Your task to perform on an android device: Go to eBay Image 0: 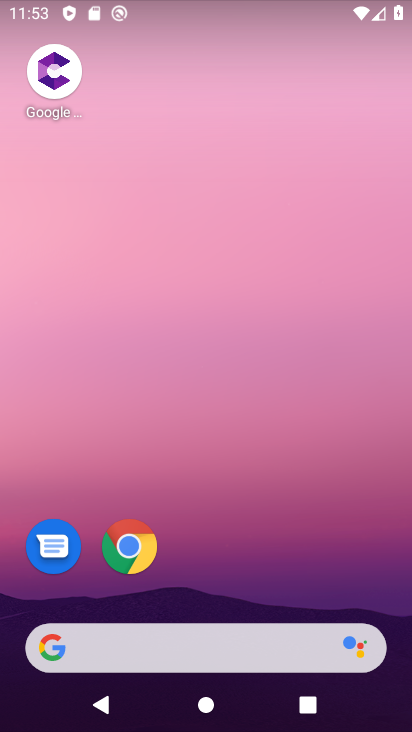
Step 0: click (157, 647)
Your task to perform on an android device: Go to eBay Image 1: 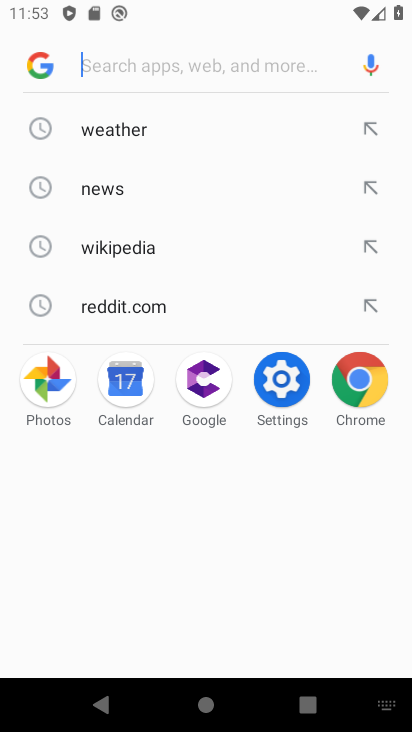
Step 1: type "eBay"
Your task to perform on an android device: Go to eBay Image 2: 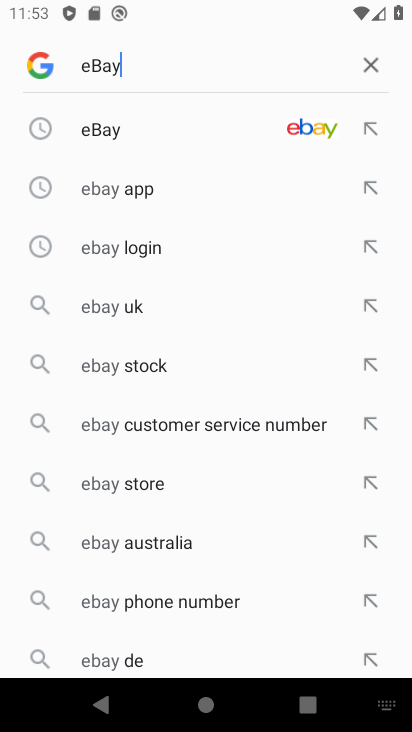
Step 2: click (184, 133)
Your task to perform on an android device: Go to eBay Image 3: 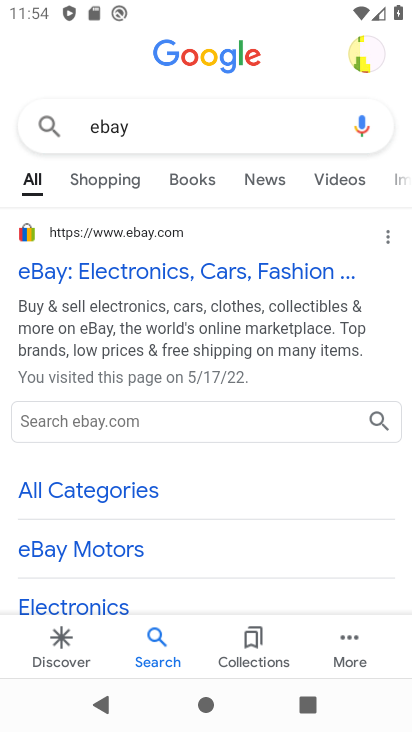
Step 3: click (168, 270)
Your task to perform on an android device: Go to eBay Image 4: 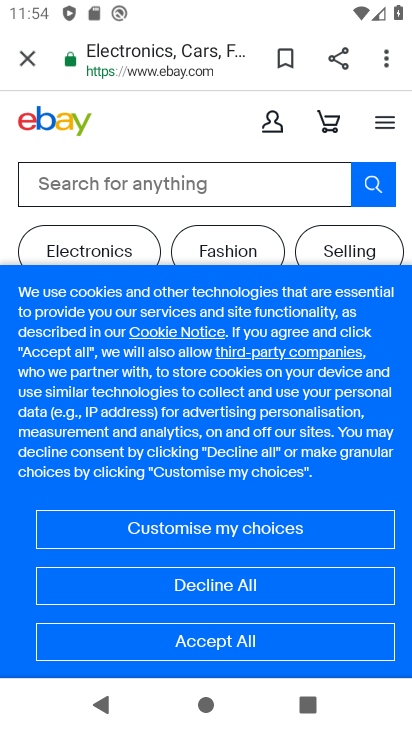
Step 4: click (277, 655)
Your task to perform on an android device: Go to eBay Image 5: 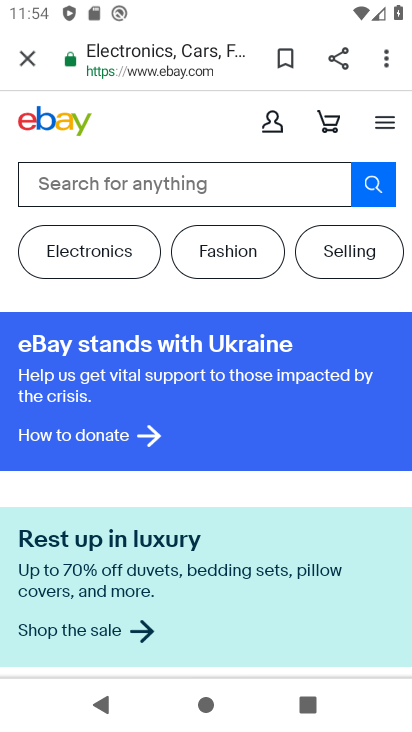
Step 5: task complete